Your task to perform on an android device: Go to wifi settings Image 0: 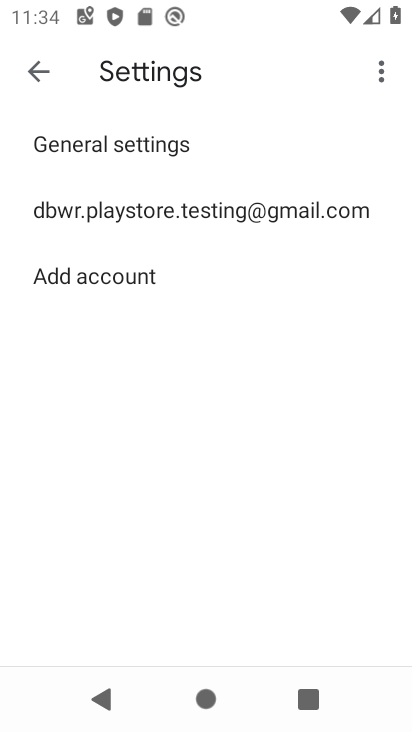
Step 0: press home button
Your task to perform on an android device: Go to wifi settings Image 1: 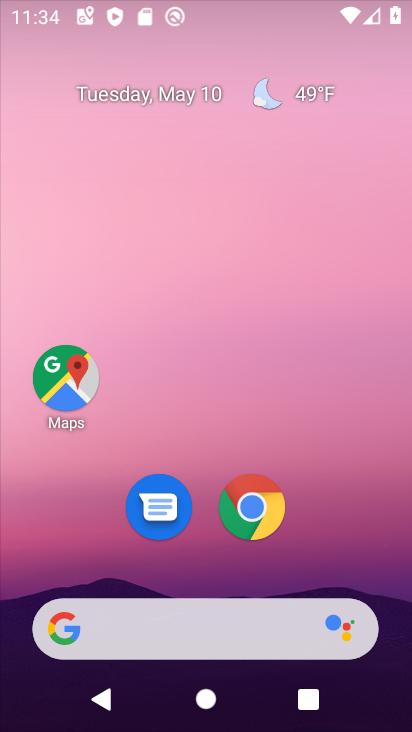
Step 1: drag from (208, 571) to (181, 78)
Your task to perform on an android device: Go to wifi settings Image 2: 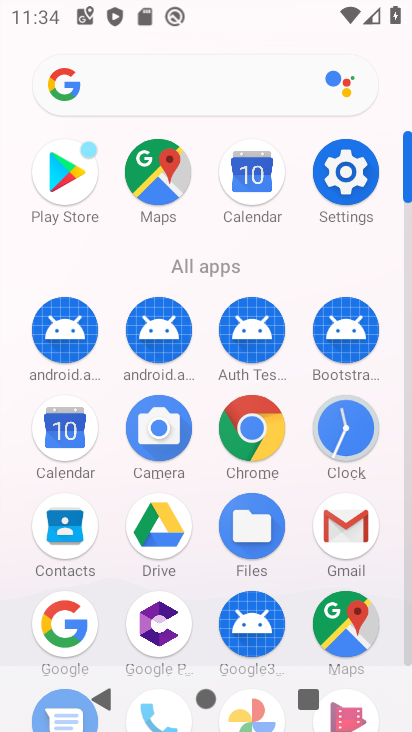
Step 2: click (347, 172)
Your task to perform on an android device: Go to wifi settings Image 3: 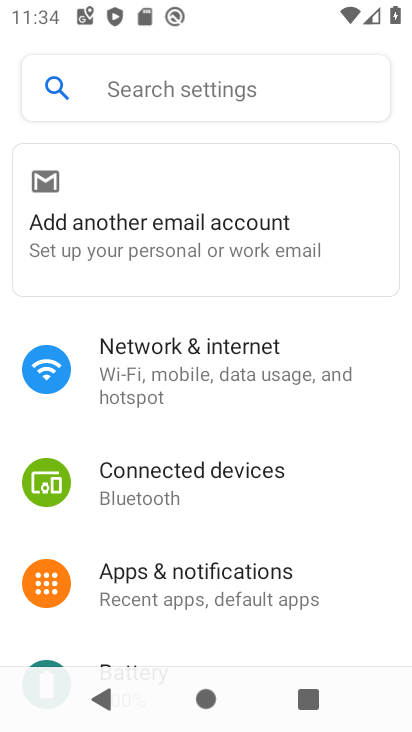
Step 3: click (181, 353)
Your task to perform on an android device: Go to wifi settings Image 4: 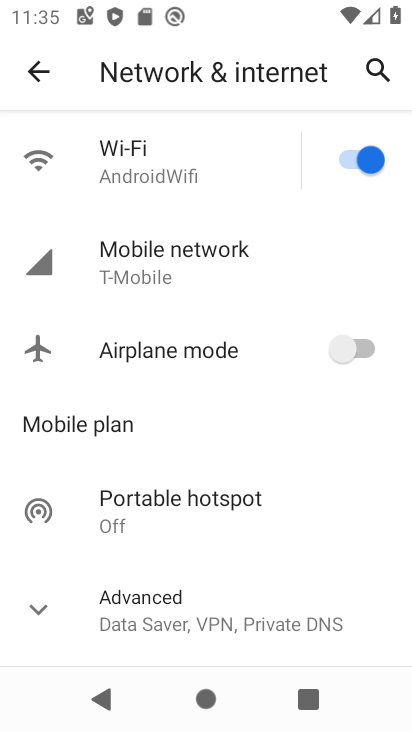
Step 4: click (145, 163)
Your task to perform on an android device: Go to wifi settings Image 5: 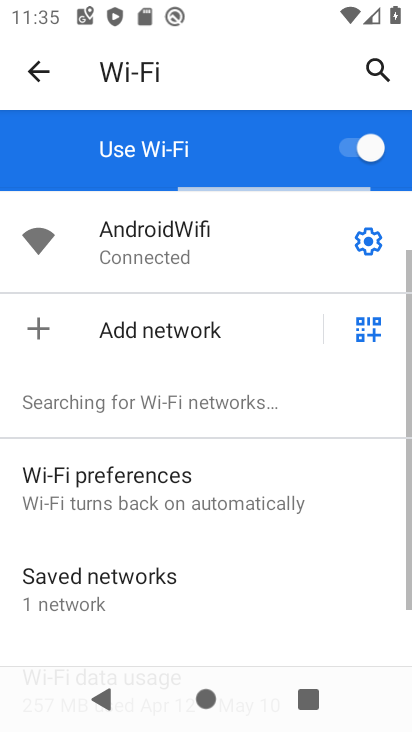
Step 5: click (364, 246)
Your task to perform on an android device: Go to wifi settings Image 6: 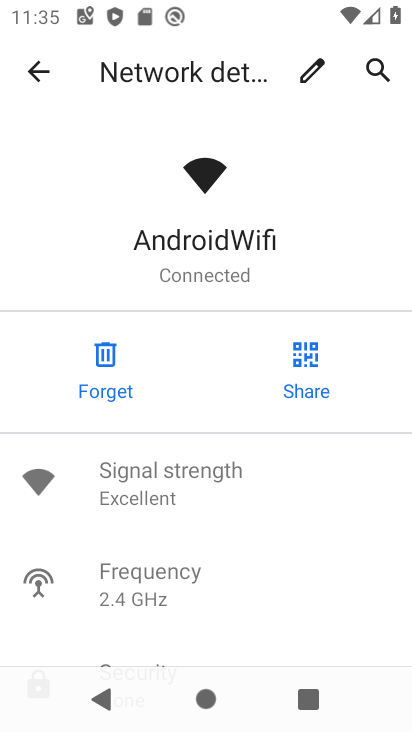
Step 6: task complete